Your task to perform on an android device: turn off picture-in-picture Image 0: 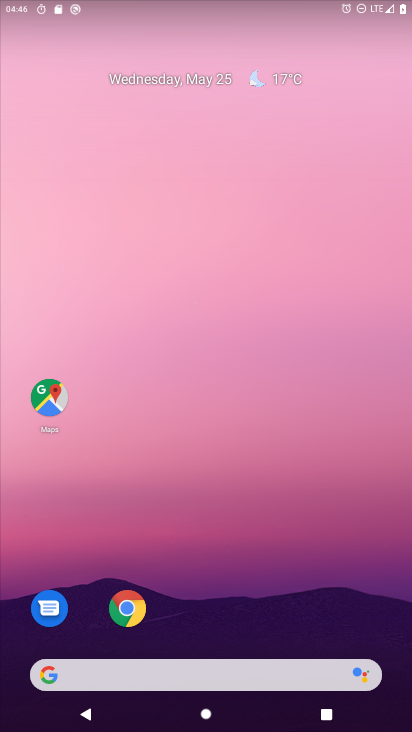
Step 0: click (111, 603)
Your task to perform on an android device: turn off picture-in-picture Image 1: 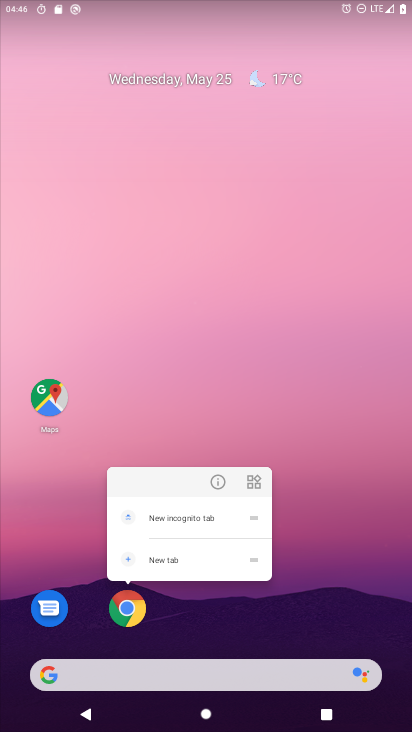
Step 1: click (211, 483)
Your task to perform on an android device: turn off picture-in-picture Image 2: 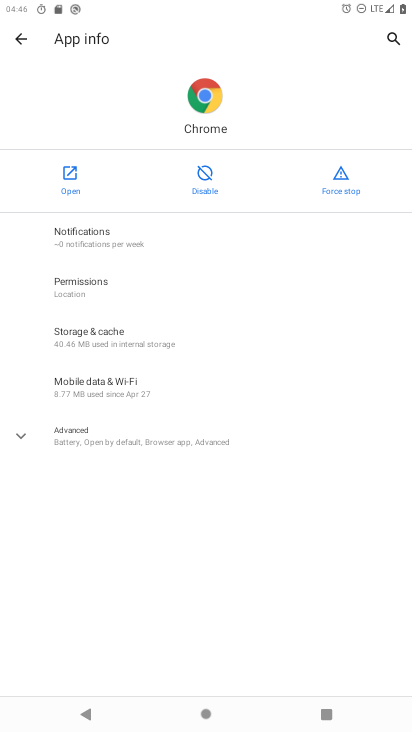
Step 2: click (105, 453)
Your task to perform on an android device: turn off picture-in-picture Image 3: 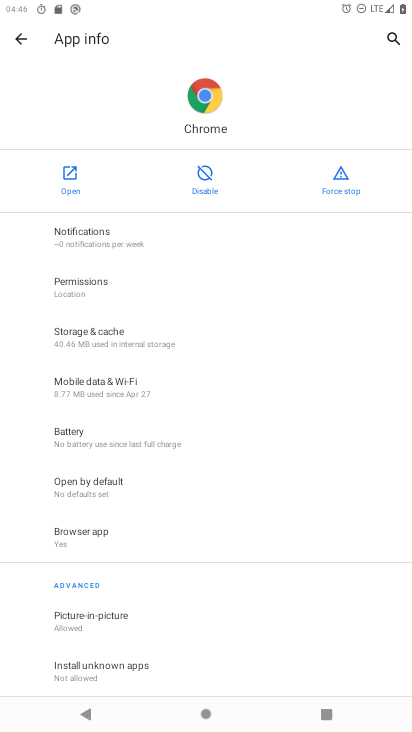
Step 3: drag from (163, 652) to (213, 221)
Your task to perform on an android device: turn off picture-in-picture Image 4: 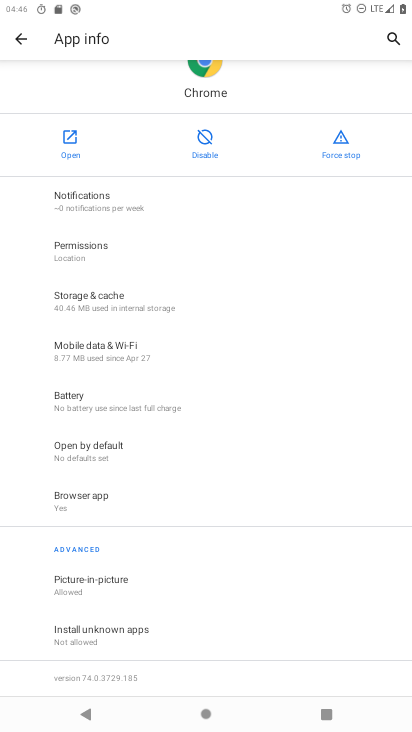
Step 4: click (117, 584)
Your task to perform on an android device: turn off picture-in-picture Image 5: 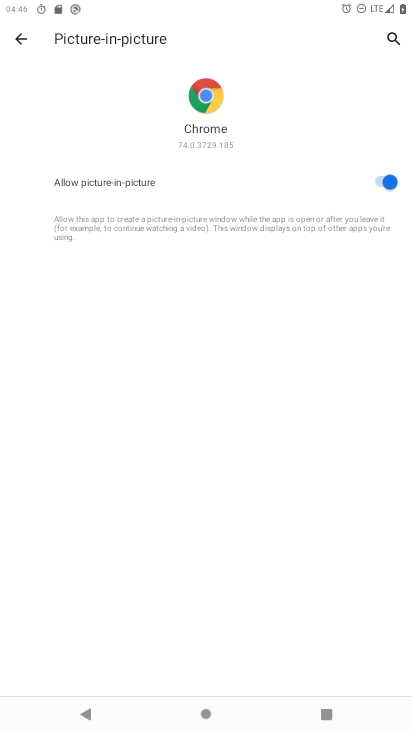
Step 5: click (369, 180)
Your task to perform on an android device: turn off picture-in-picture Image 6: 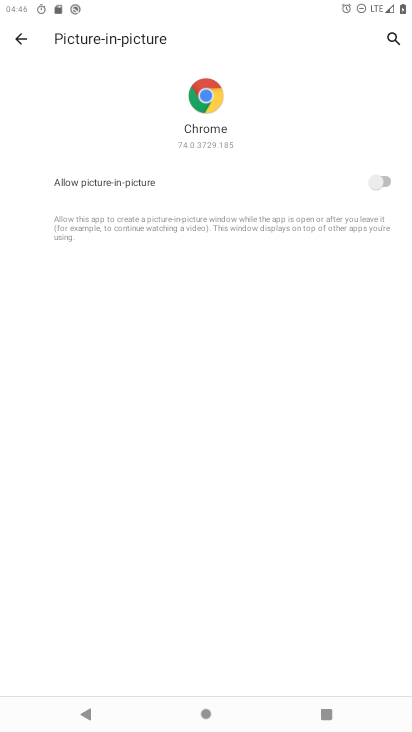
Step 6: task complete